Your task to perform on an android device: Do I have any events today? Image 0: 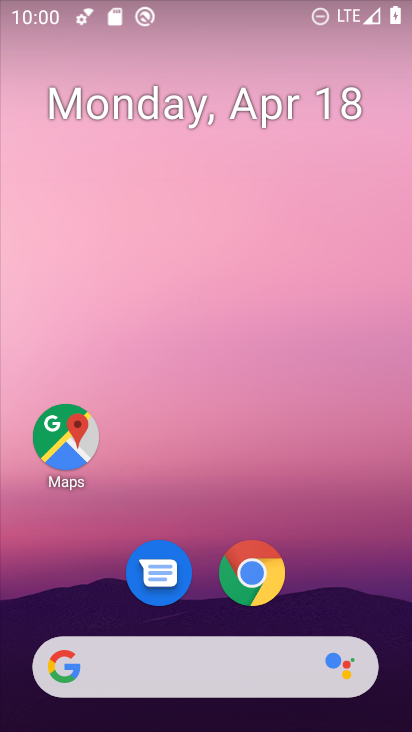
Step 0: drag from (349, 602) to (234, 36)
Your task to perform on an android device: Do I have any events today? Image 1: 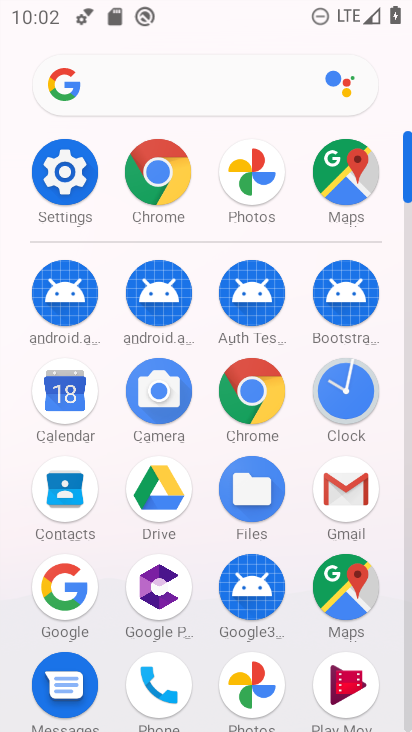
Step 1: click (60, 389)
Your task to perform on an android device: Do I have any events today? Image 2: 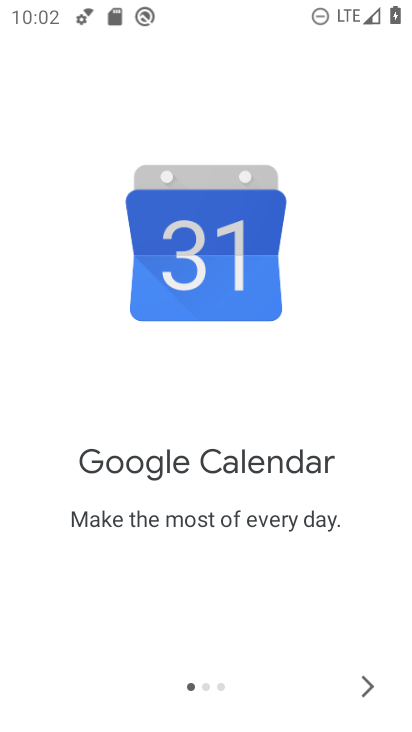
Step 2: click (366, 685)
Your task to perform on an android device: Do I have any events today? Image 3: 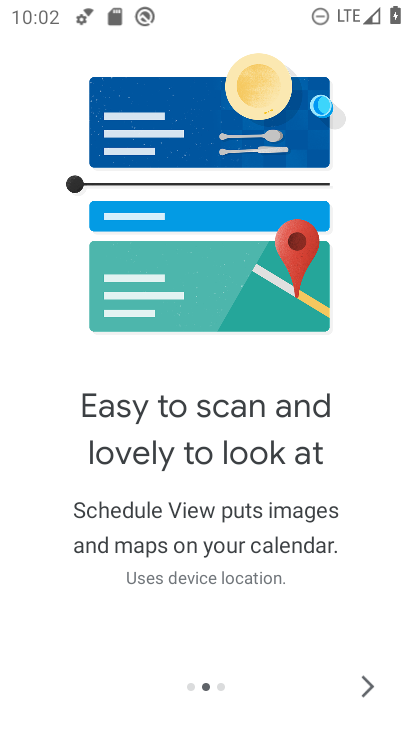
Step 3: click (366, 685)
Your task to perform on an android device: Do I have any events today? Image 4: 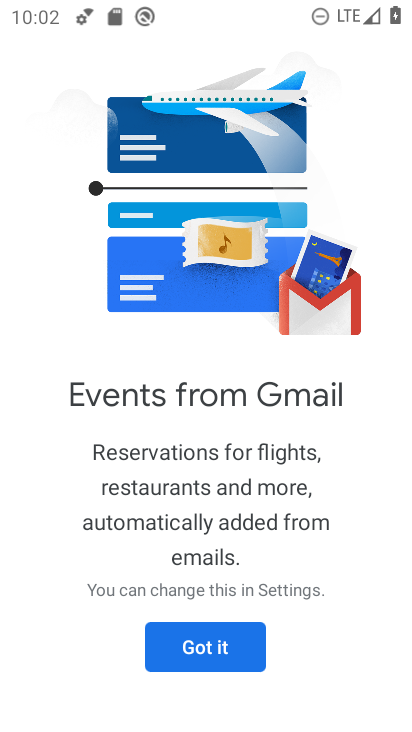
Step 4: click (230, 640)
Your task to perform on an android device: Do I have any events today? Image 5: 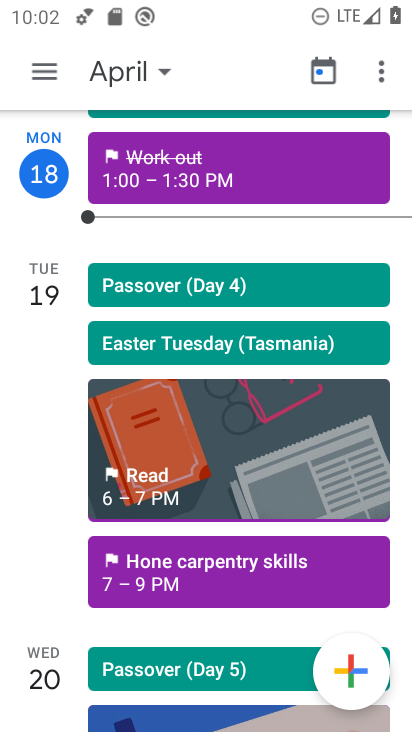
Step 5: click (45, 177)
Your task to perform on an android device: Do I have any events today? Image 6: 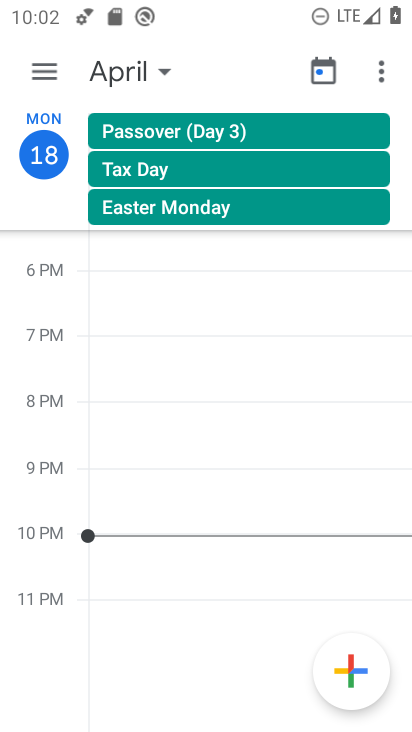
Step 6: task complete